Your task to perform on an android device: delete the emails in spam in the gmail app Image 0: 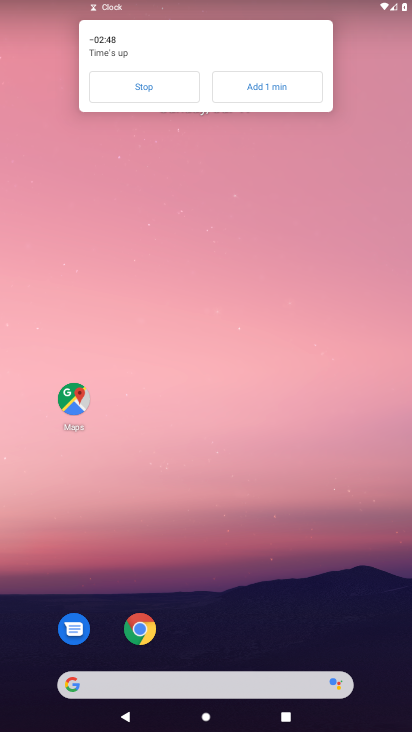
Step 0: drag from (221, 722) to (195, 179)
Your task to perform on an android device: delete the emails in spam in the gmail app Image 1: 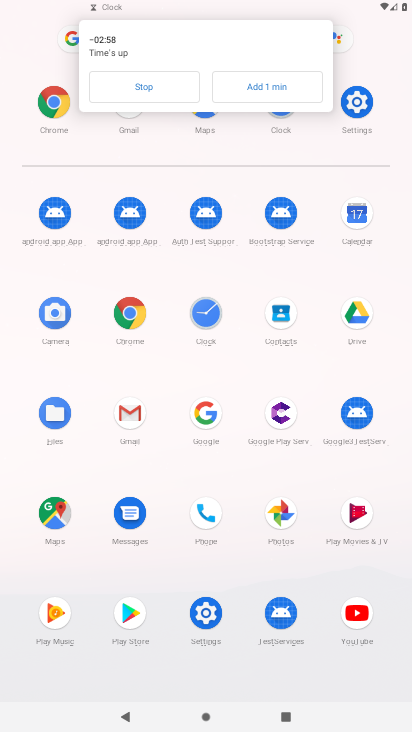
Step 1: click (127, 411)
Your task to perform on an android device: delete the emails in spam in the gmail app Image 2: 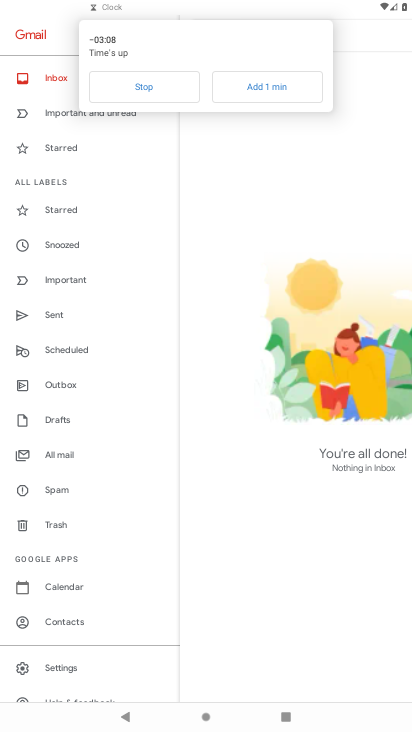
Step 2: click (58, 488)
Your task to perform on an android device: delete the emails in spam in the gmail app Image 3: 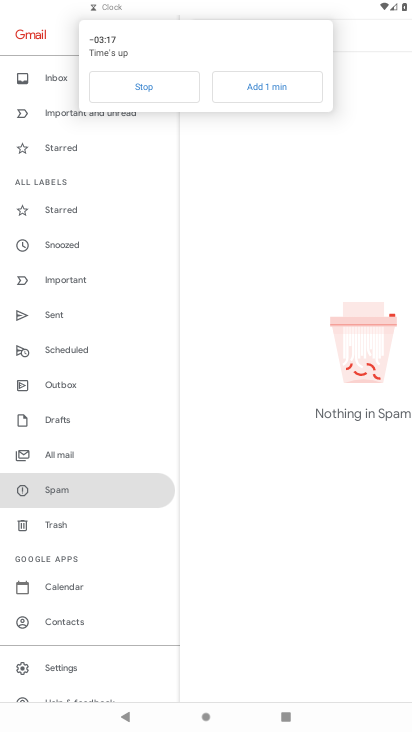
Step 3: task complete